Your task to perform on an android device: Check the weather Image 0: 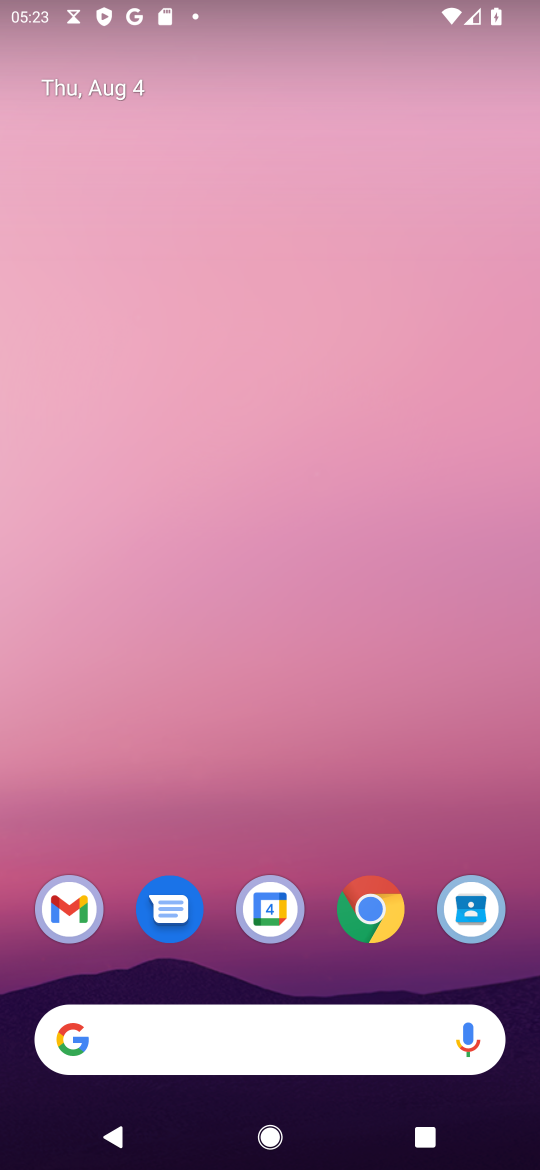
Step 0: press home button
Your task to perform on an android device: Check the weather Image 1: 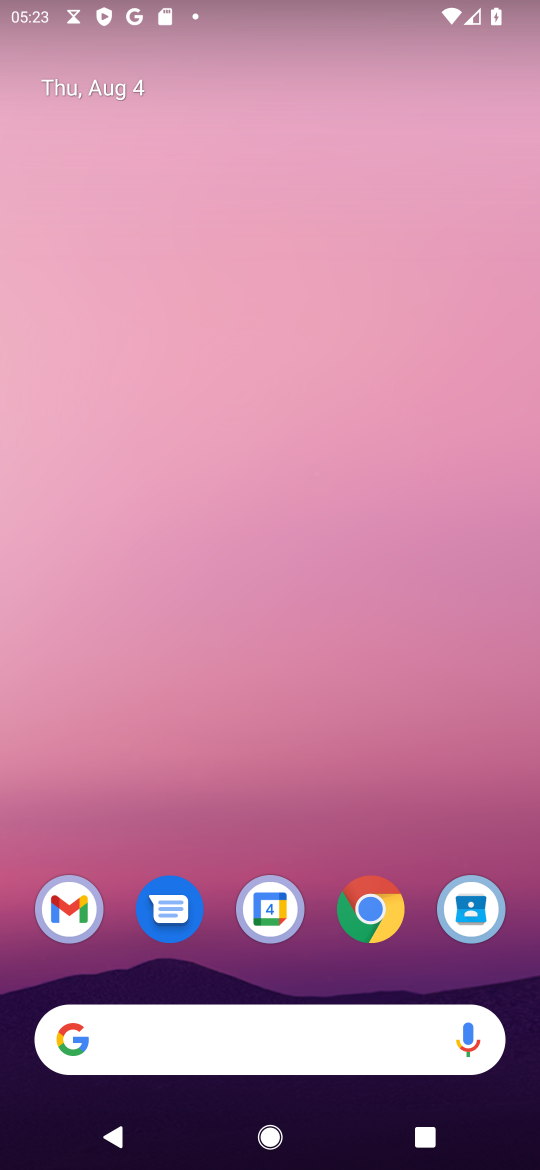
Step 1: click (198, 1037)
Your task to perform on an android device: Check the weather Image 2: 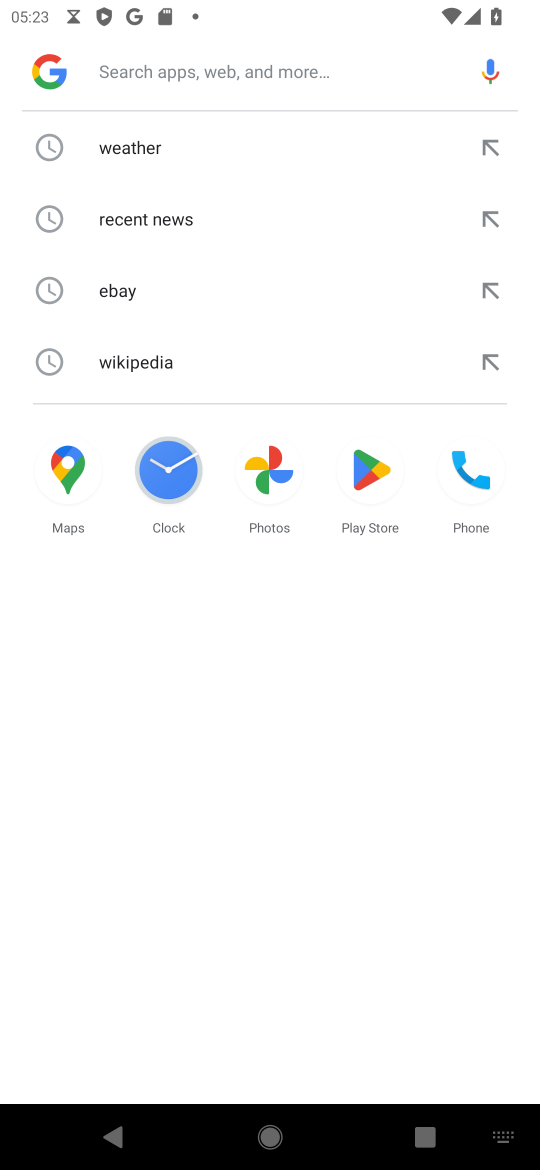
Step 2: click (145, 142)
Your task to perform on an android device: Check the weather Image 3: 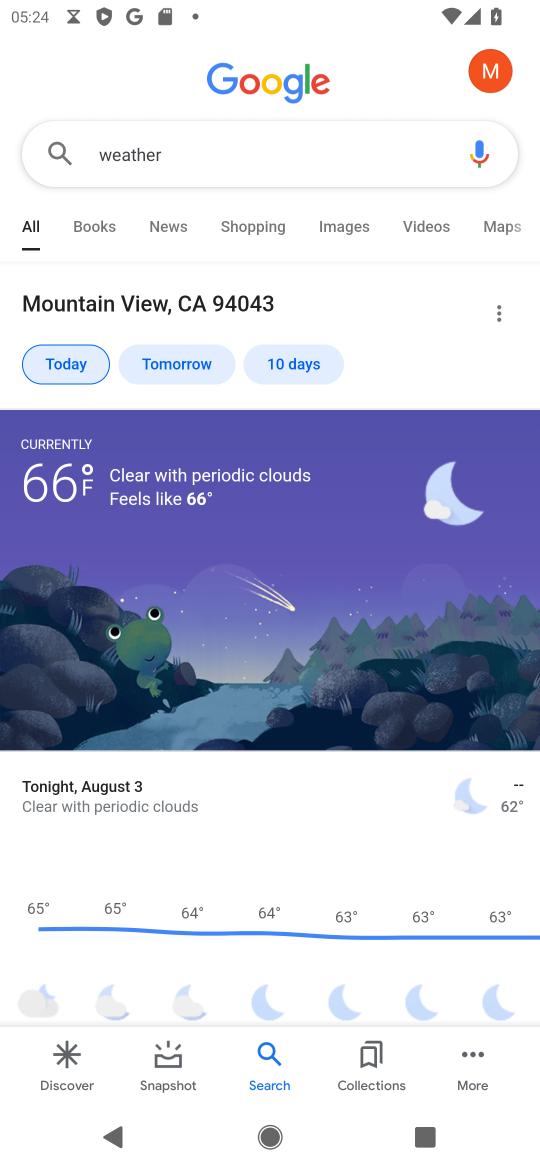
Step 3: task complete